Your task to perform on an android device: Go to sound settings Image 0: 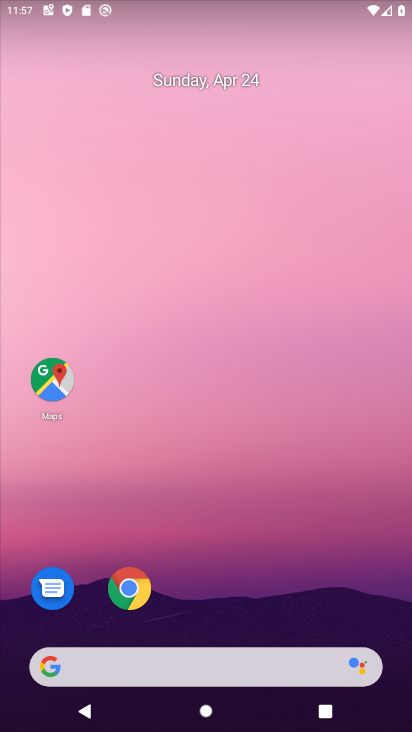
Step 0: drag from (229, 457) to (4, 575)
Your task to perform on an android device: Go to sound settings Image 1: 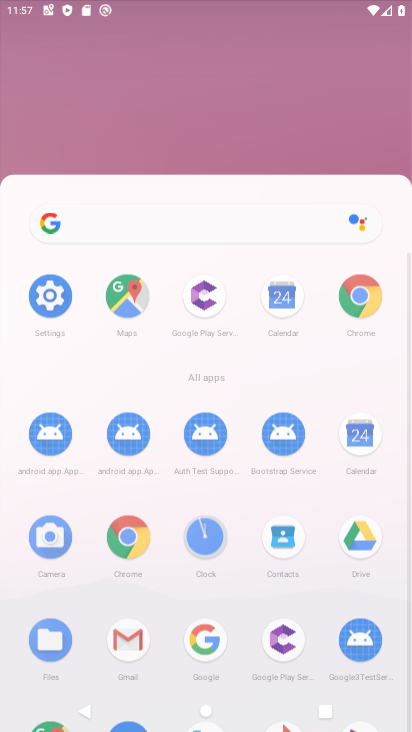
Step 1: drag from (78, 654) to (306, 62)
Your task to perform on an android device: Go to sound settings Image 2: 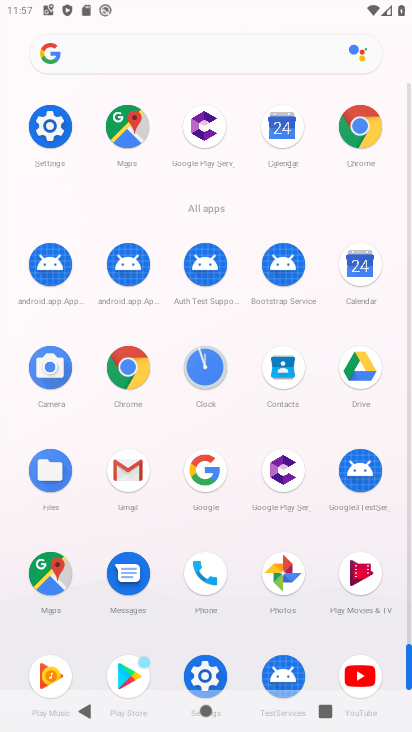
Step 2: drag from (250, 587) to (273, 454)
Your task to perform on an android device: Go to sound settings Image 3: 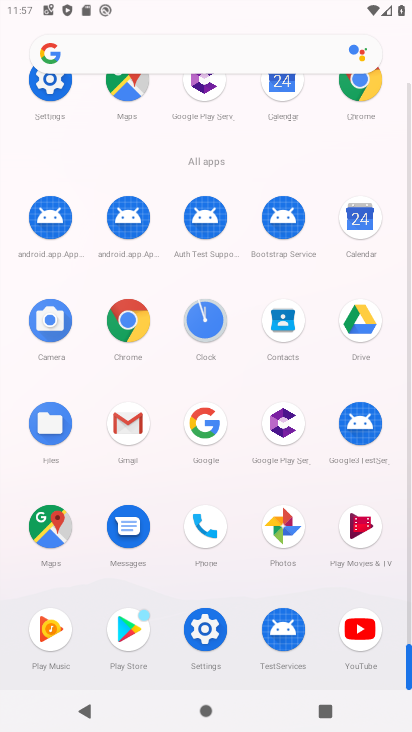
Step 3: click (211, 638)
Your task to perform on an android device: Go to sound settings Image 4: 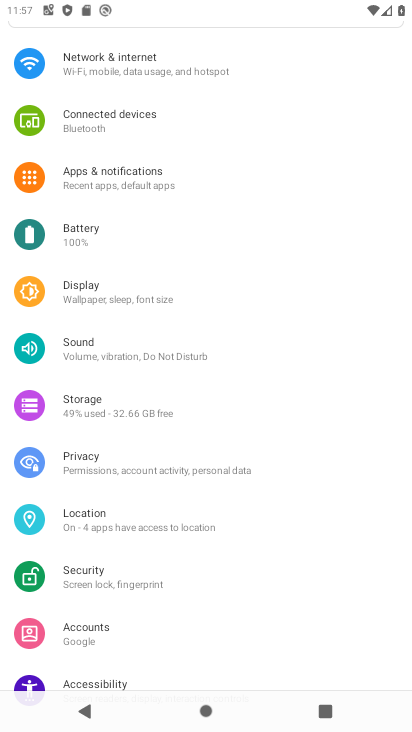
Step 4: click (120, 345)
Your task to perform on an android device: Go to sound settings Image 5: 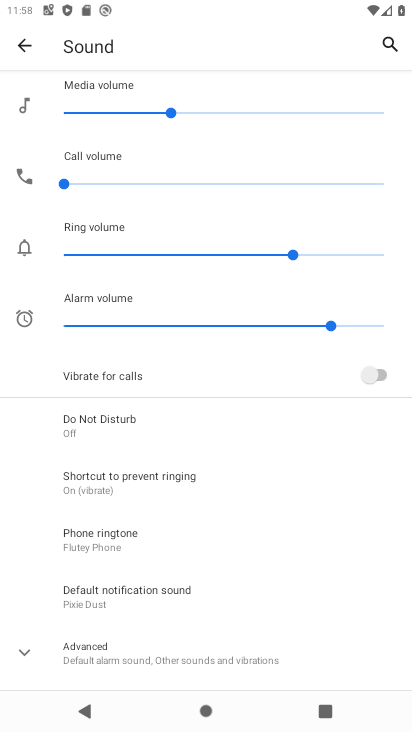
Step 5: task complete